Your task to perform on an android device: Open Google Image 0: 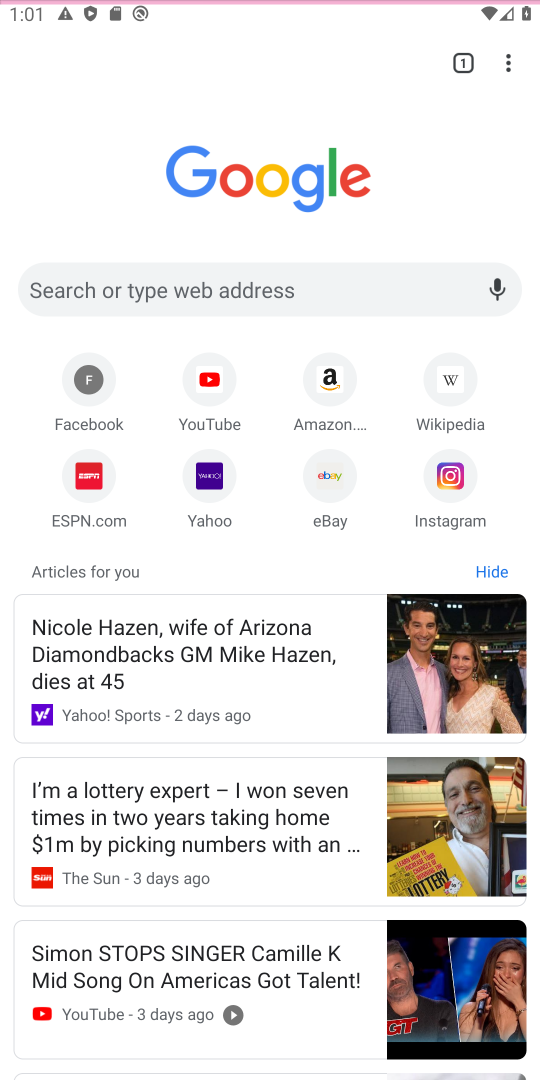
Step 0: press home button
Your task to perform on an android device: Open Google Image 1: 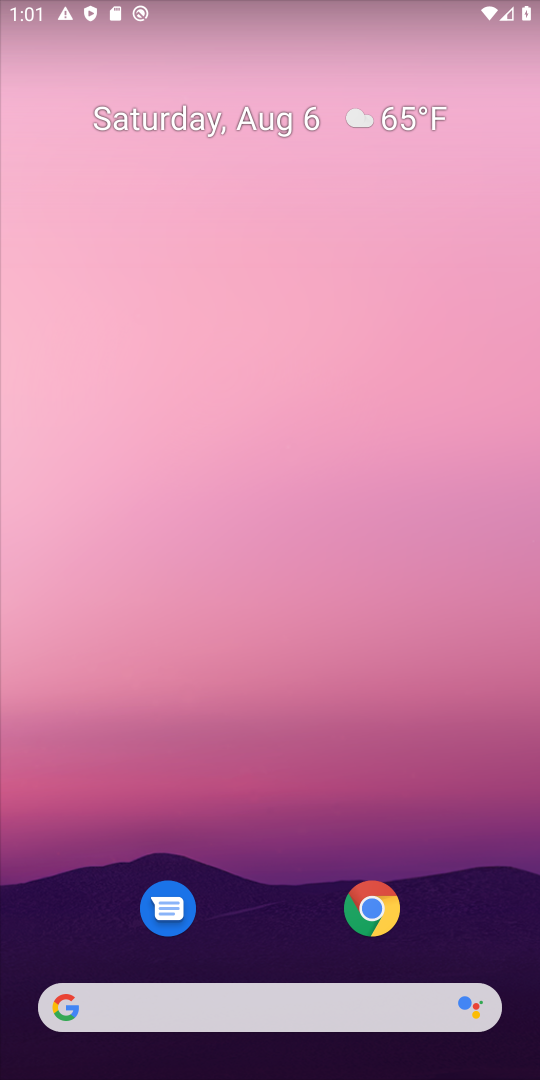
Step 1: drag from (275, 858) to (227, 434)
Your task to perform on an android device: Open Google Image 2: 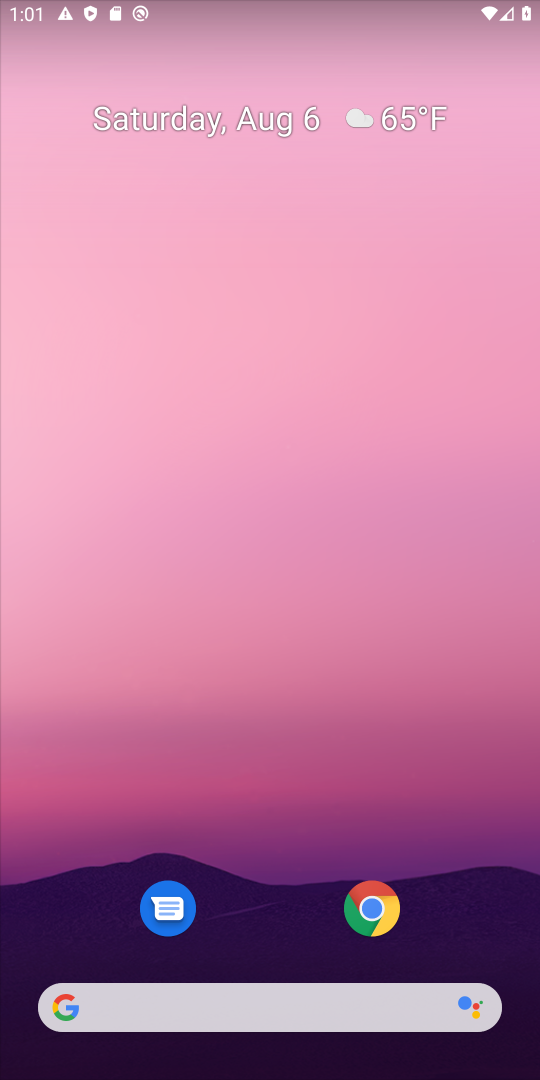
Step 2: drag from (257, 896) to (250, 5)
Your task to perform on an android device: Open Google Image 3: 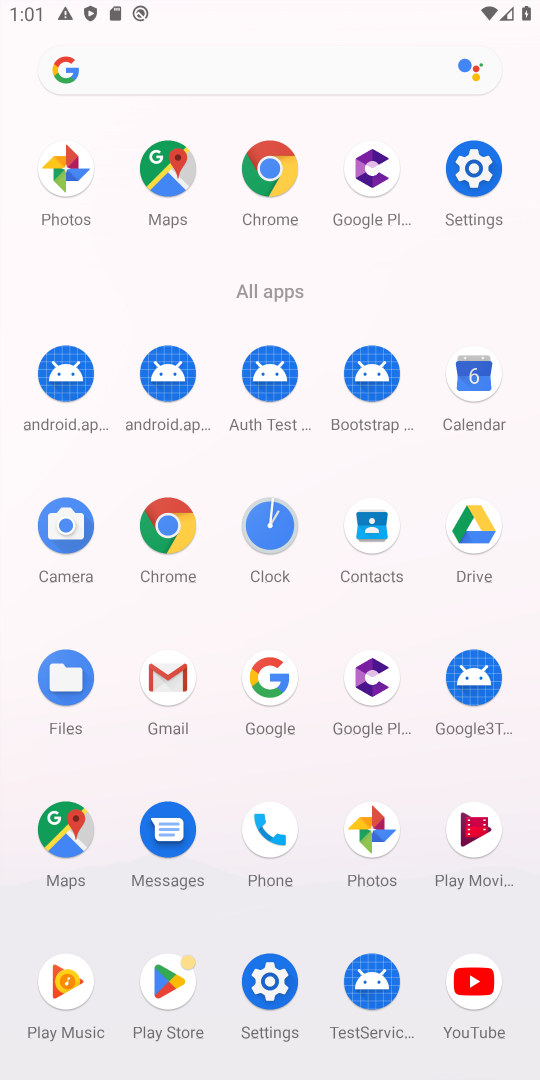
Step 3: click (280, 673)
Your task to perform on an android device: Open Google Image 4: 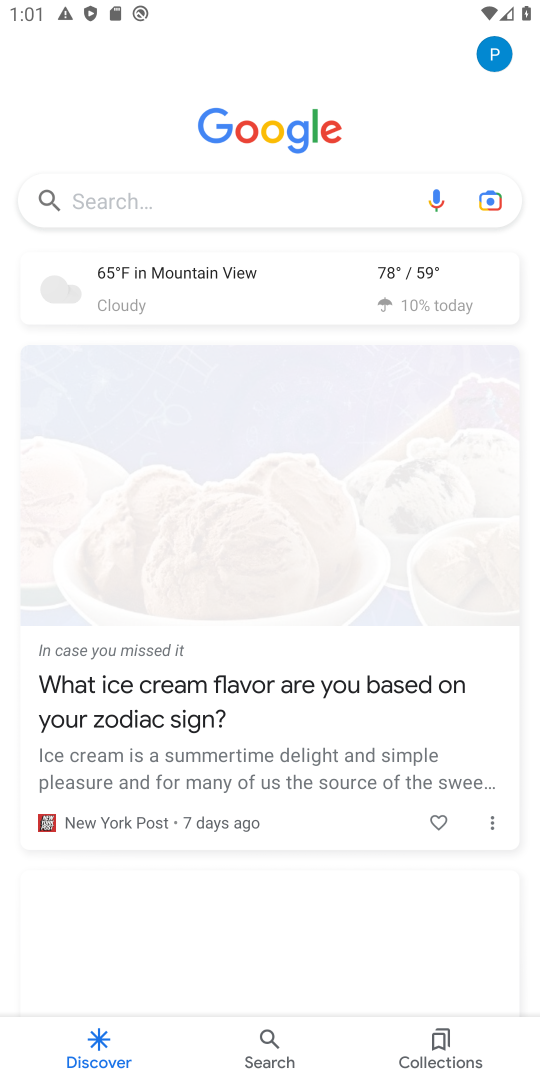
Step 4: task complete